Your task to perform on an android device: Open the map Image 0: 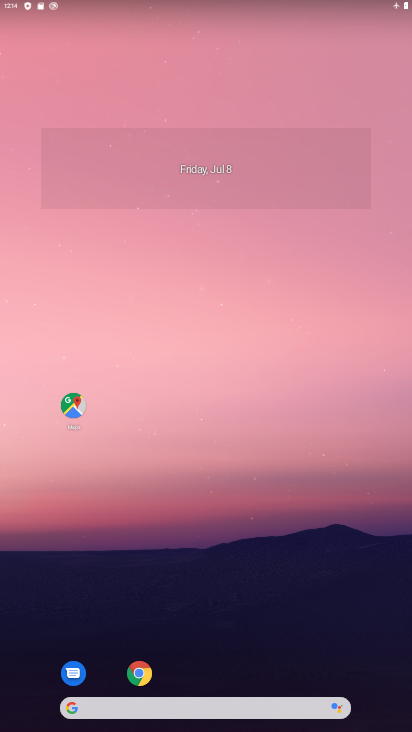
Step 0: click (71, 406)
Your task to perform on an android device: Open the map Image 1: 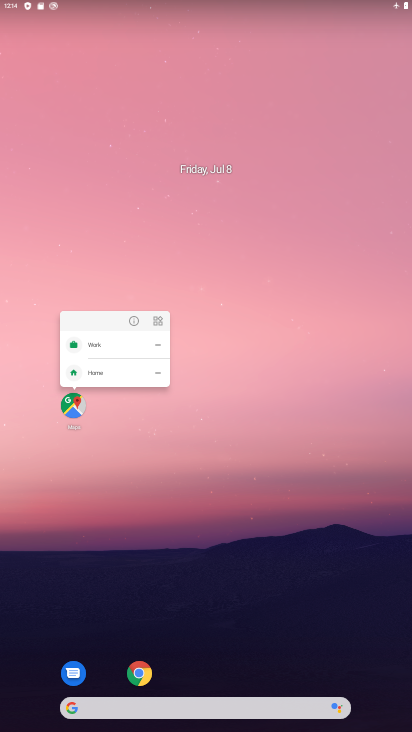
Step 1: click (73, 407)
Your task to perform on an android device: Open the map Image 2: 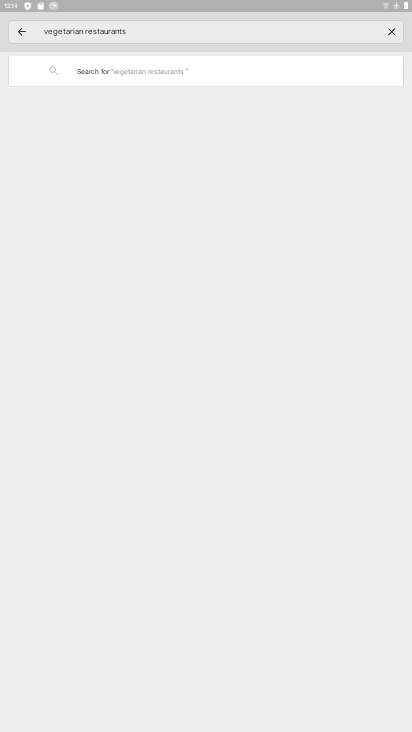
Step 2: task complete